Your task to perform on an android device: turn on airplane mode Image 0: 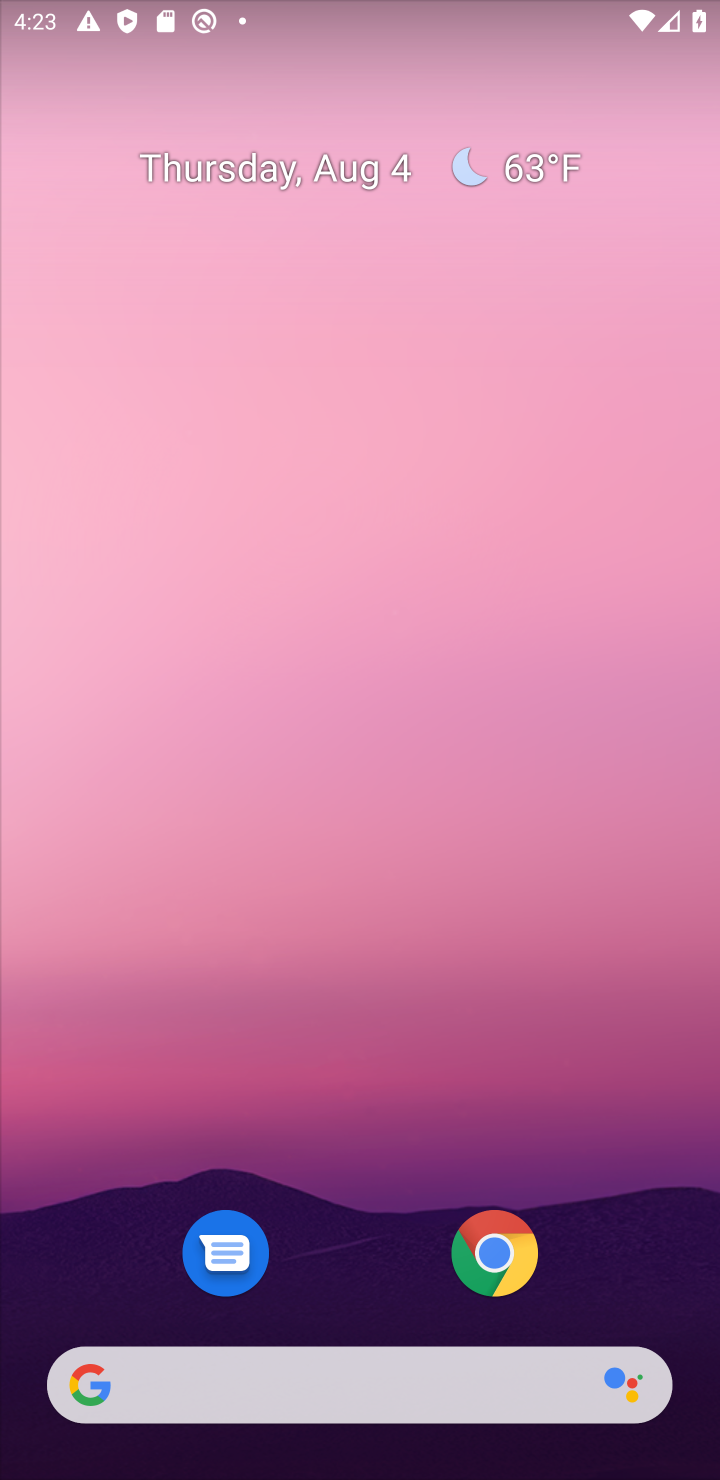
Step 0: drag from (424, 1371) to (364, 282)
Your task to perform on an android device: turn on airplane mode Image 1: 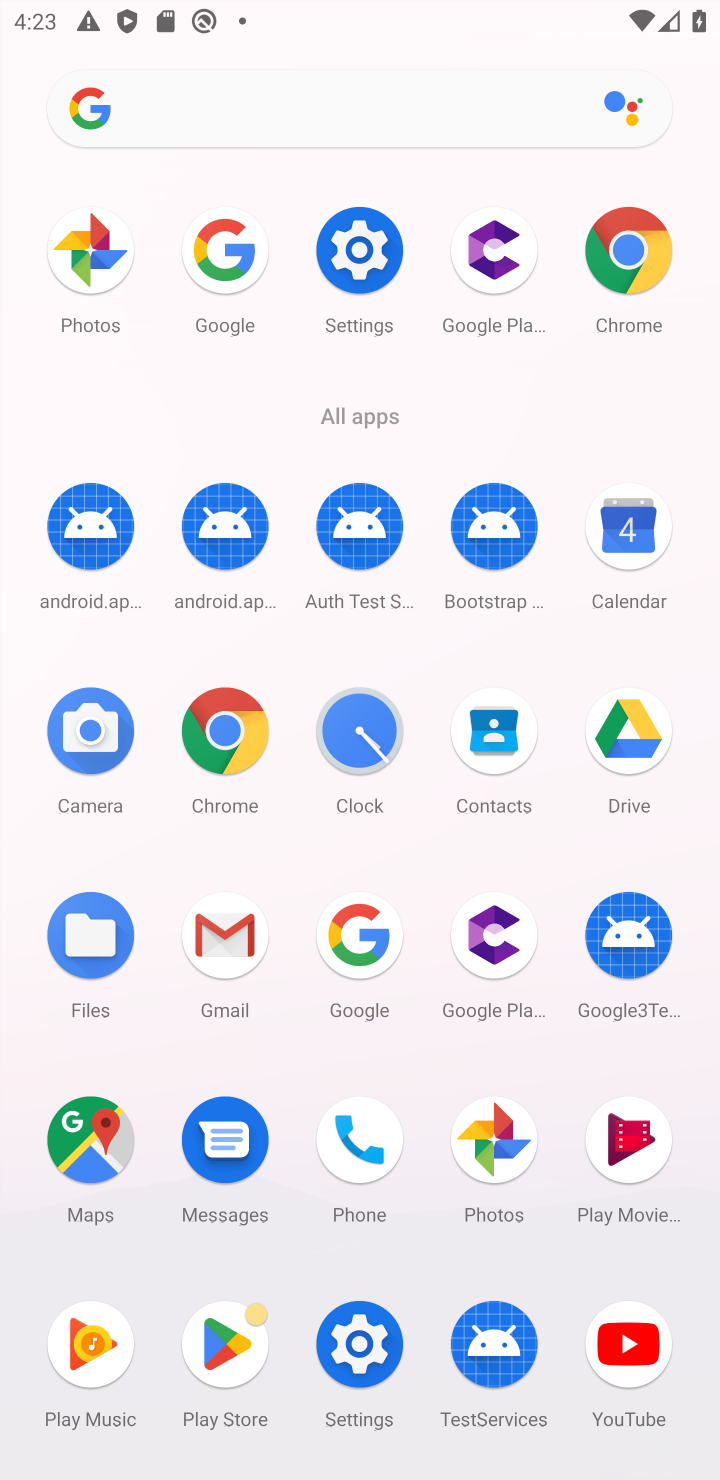
Step 1: click (349, 266)
Your task to perform on an android device: turn on airplane mode Image 2: 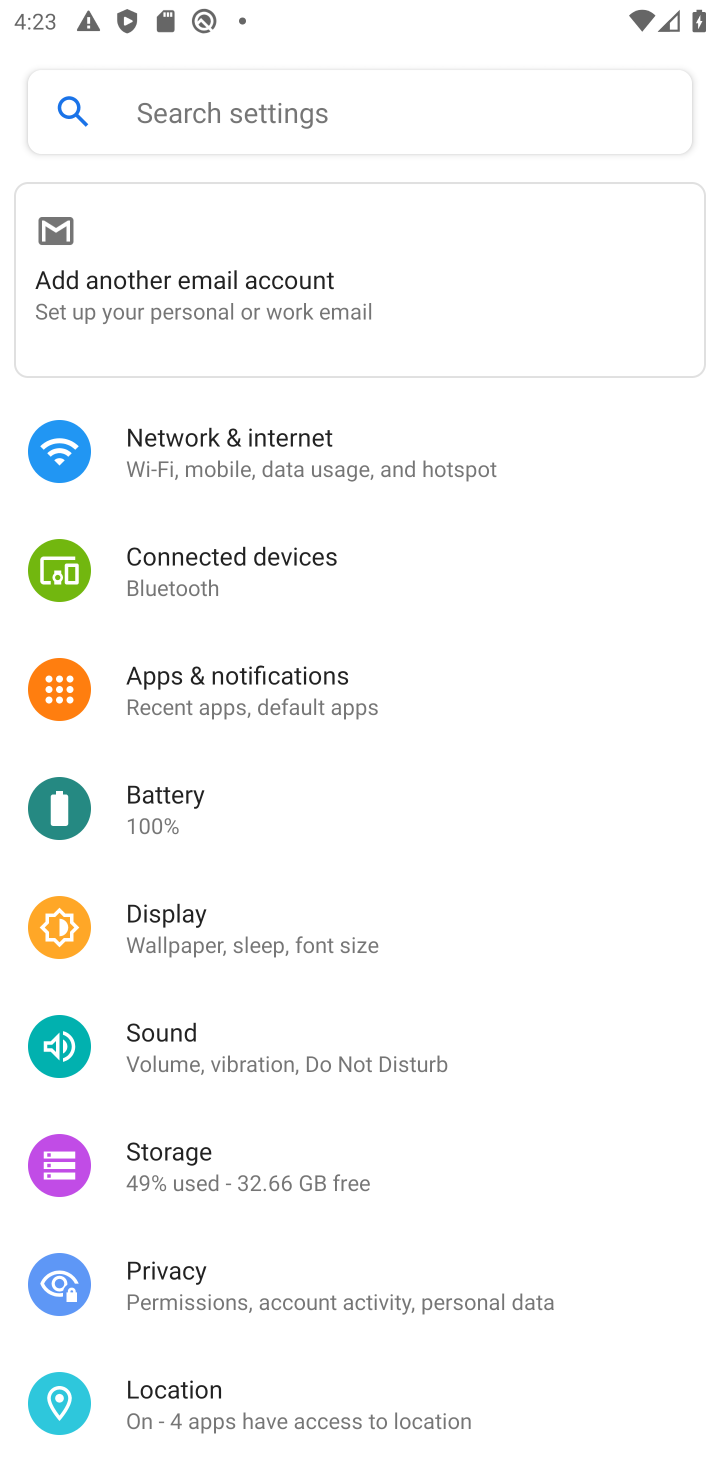
Step 2: click (173, 470)
Your task to perform on an android device: turn on airplane mode Image 3: 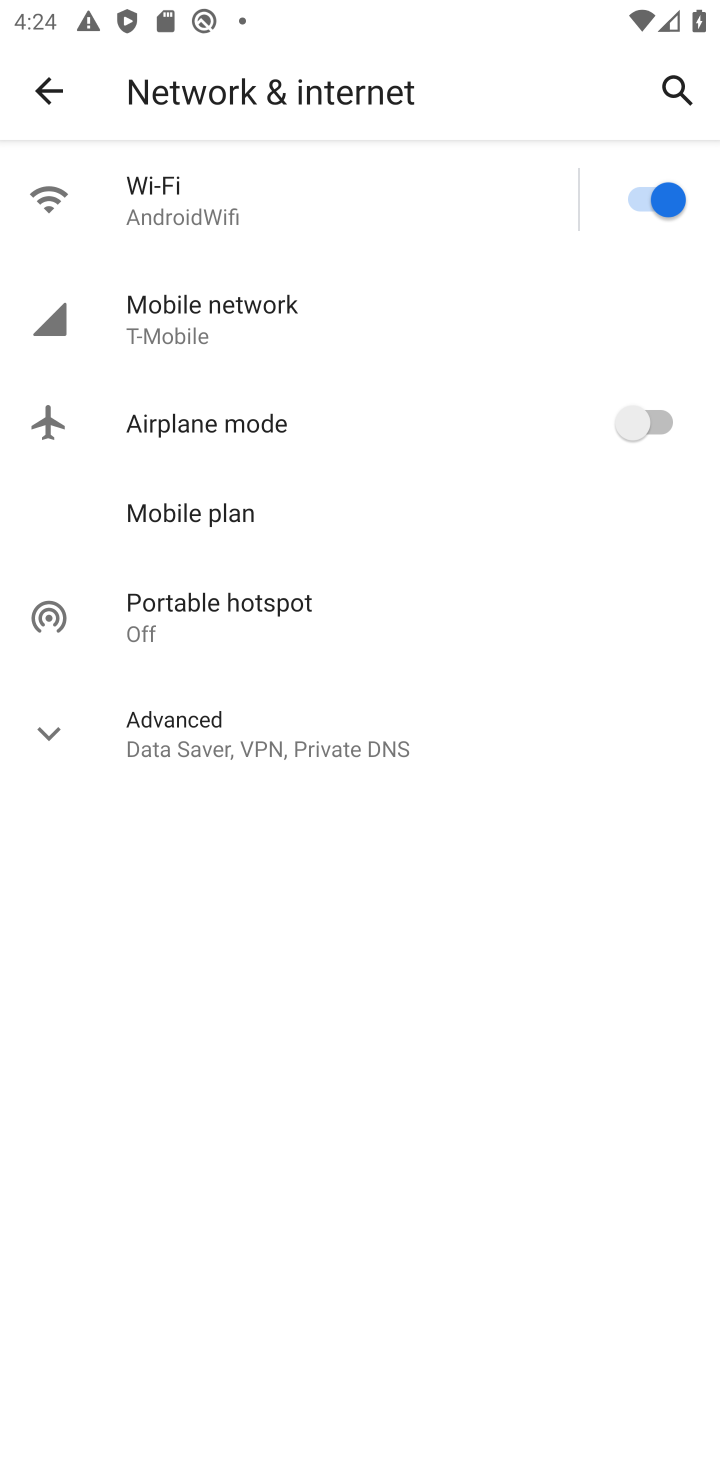
Step 3: click (643, 427)
Your task to perform on an android device: turn on airplane mode Image 4: 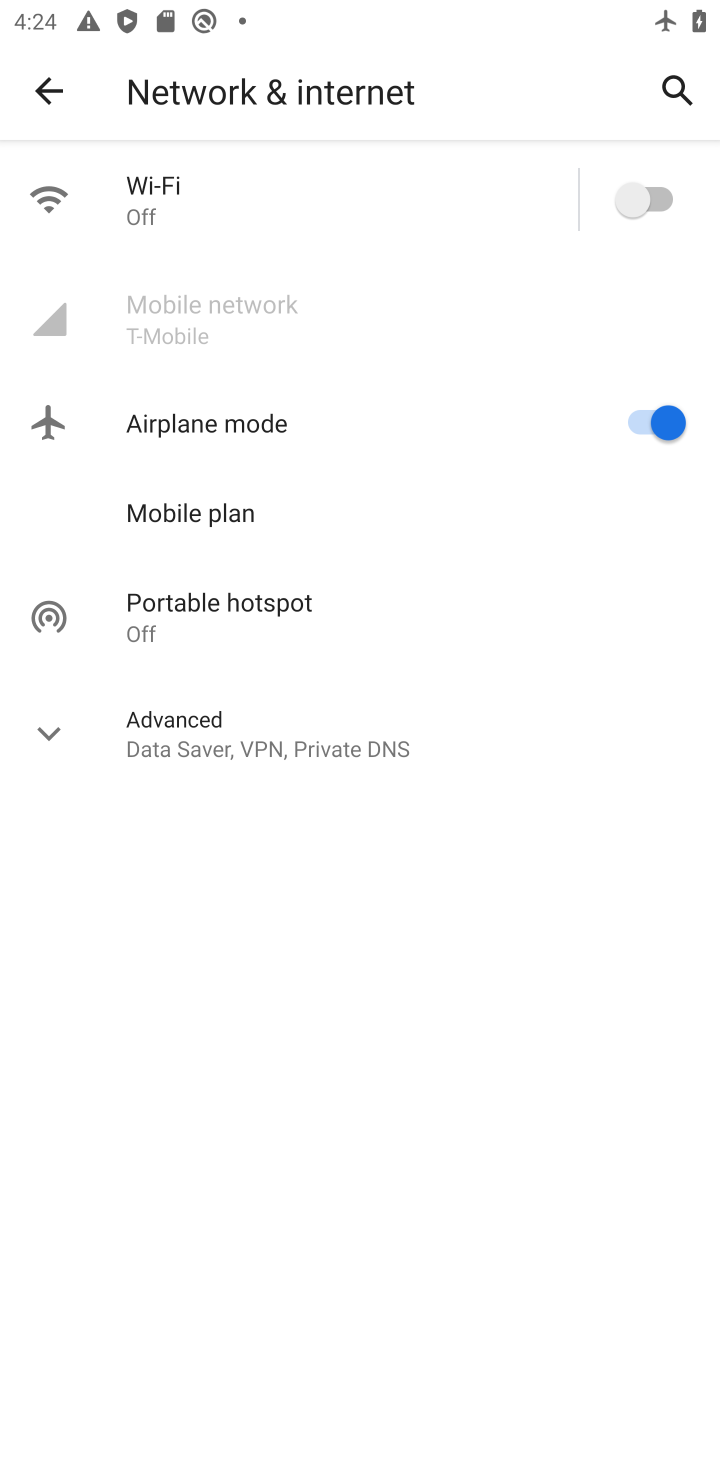
Step 4: task complete